Your task to perform on an android device: Set the phone to "Do not disturb". Image 0: 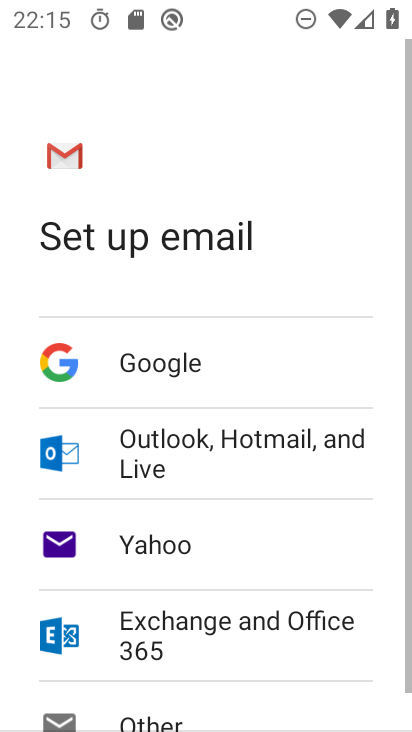
Step 0: press home button
Your task to perform on an android device: Set the phone to "Do not disturb". Image 1: 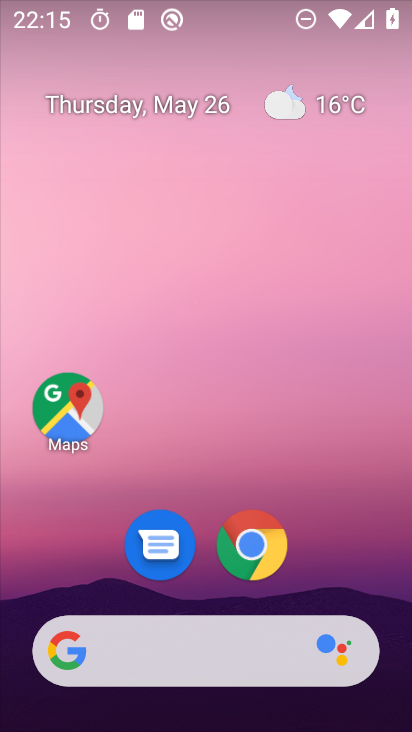
Step 1: drag from (358, 563) to (362, 56)
Your task to perform on an android device: Set the phone to "Do not disturb". Image 2: 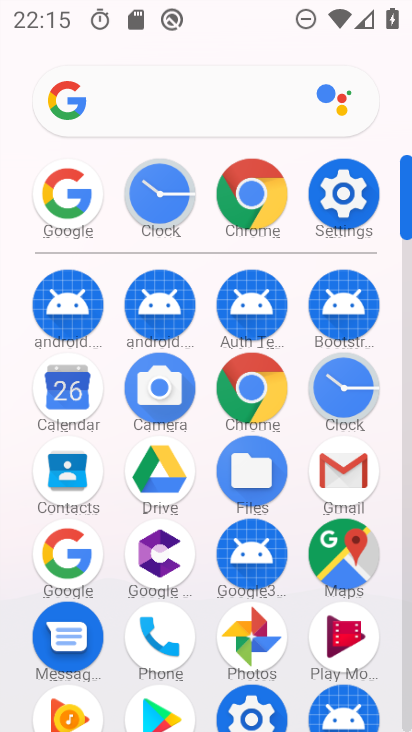
Step 2: click (354, 197)
Your task to perform on an android device: Set the phone to "Do not disturb". Image 3: 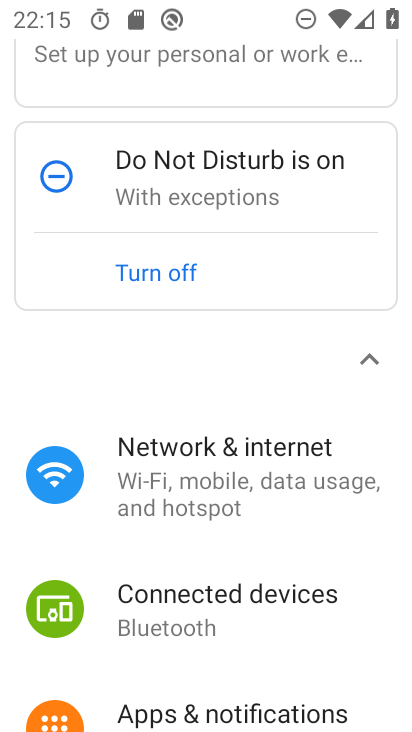
Step 3: drag from (246, 642) to (229, 187)
Your task to perform on an android device: Set the phone to "Do not disturb". Image 4: 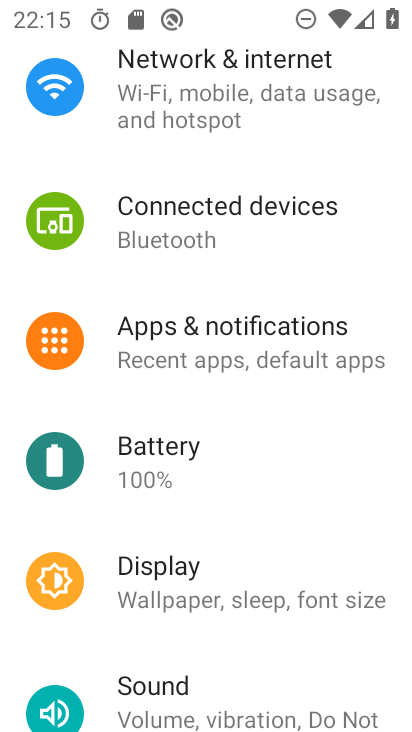
Step 4: drag from (257, 660) to (275, 417)
Your task to perform on an android device: Set the phone to "Do not disturb". Image 5: 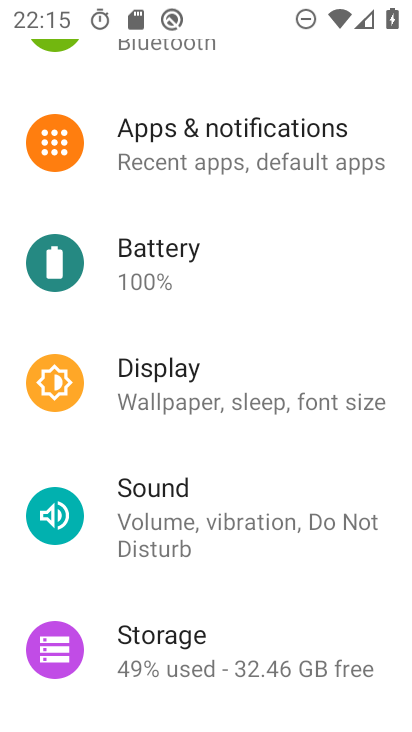
Step 5: click (240, 505)
Your task to perform on an android device: Set the phone to "Do not disturb". Image 6: 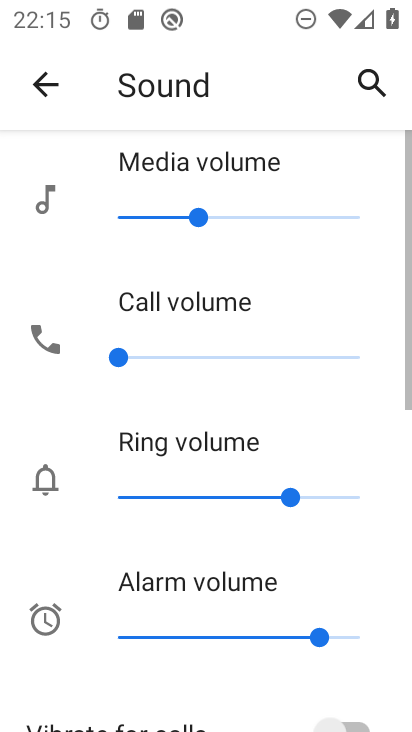
Step 6: drag from (329, 596) to (344, 343)
Your task to perform on an android device: Set the phone to "Do not disturb". Image 7: 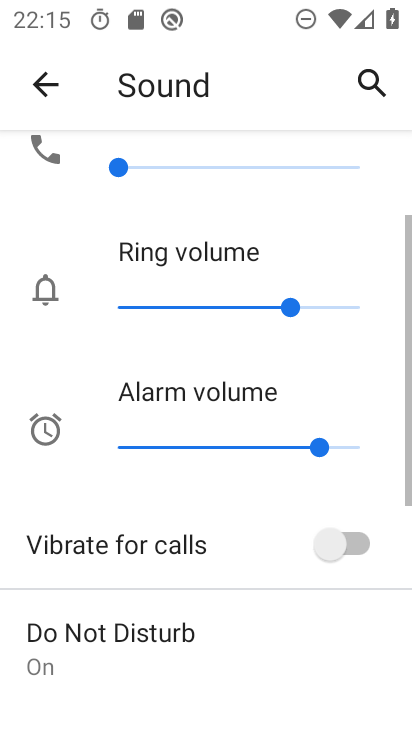
Step 7: drag from (344, 294) to (345, 212)
Your task to perform on an android device: Set the phone to "Do not disturb". Image 8: 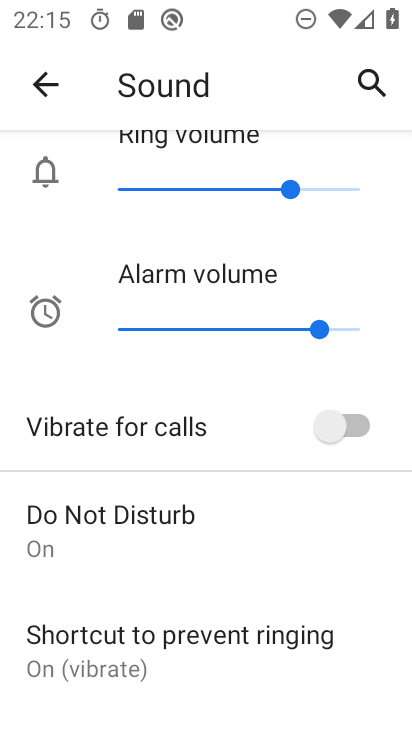
Step 8: click (139, 510)
Your task to perform on an android device: Set the phone to "Do not disturb". Image 9: 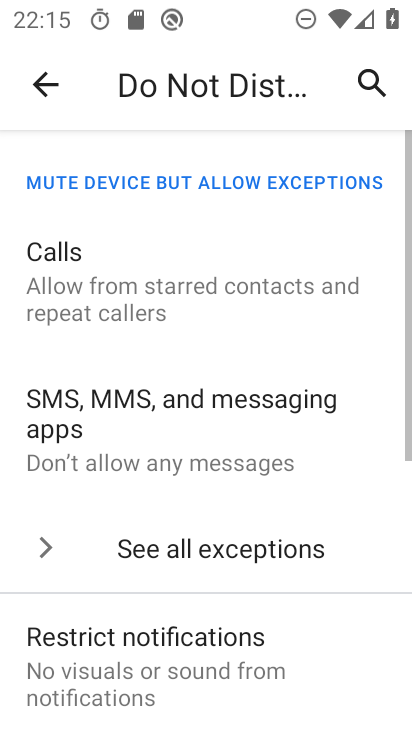
Step 9: task complete